Your task to perform on an android device: What is the recent news? Image 0: 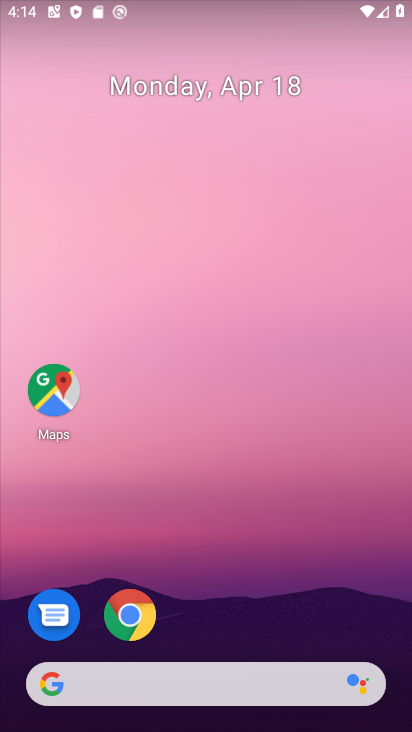
Step 0: drag from (58, 289) to (410, 236)
Your task to perform on an android device: What is the recent news? Image 1: 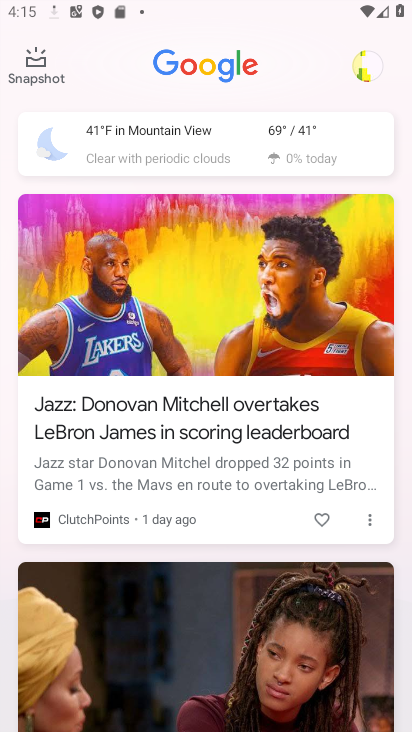
Step 1: task complete